Your task to perform on an android device: uninstall "Airtel Thanks" Image 0: 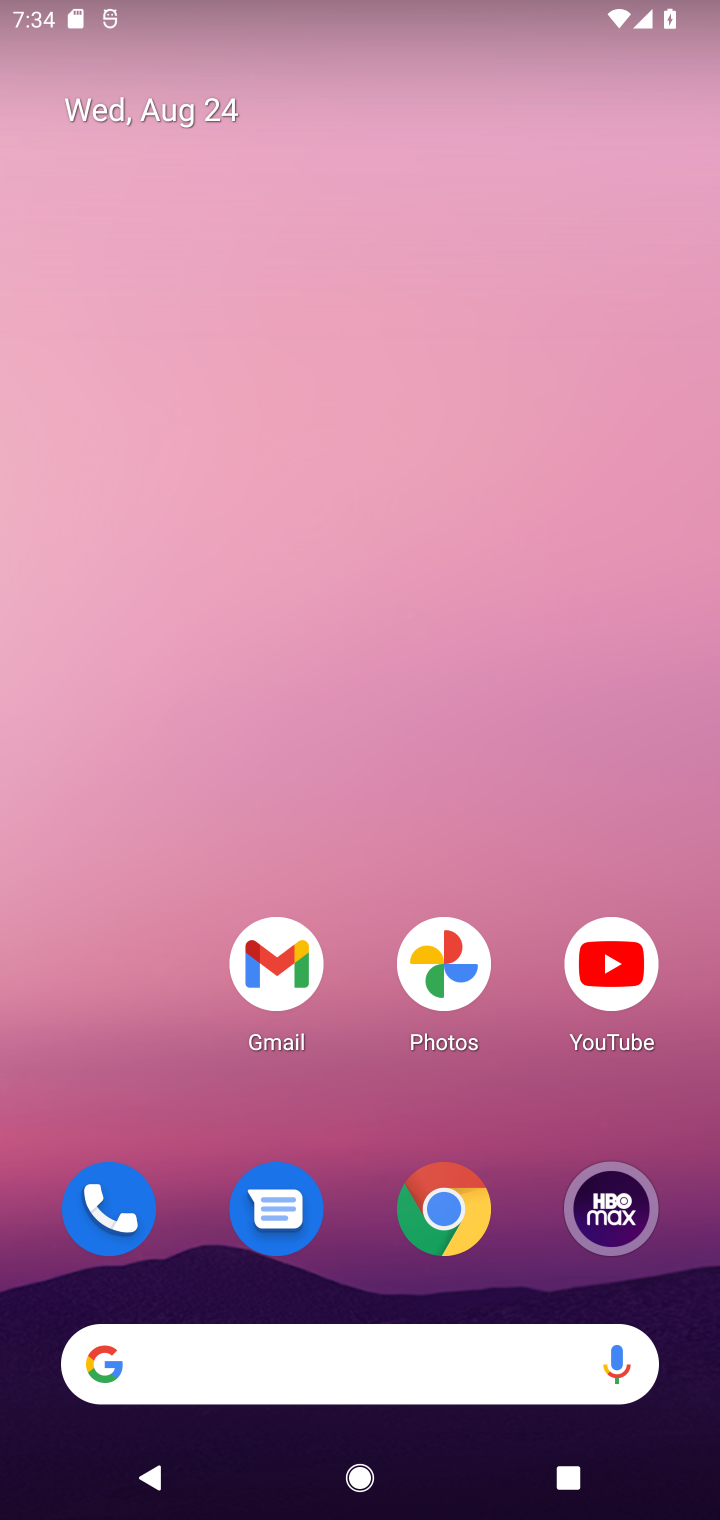
Step 0: drag from (378, 687) to (418, 86)
Your task to perform on an android device: uninstall "Airtel Thanks" Image 1: 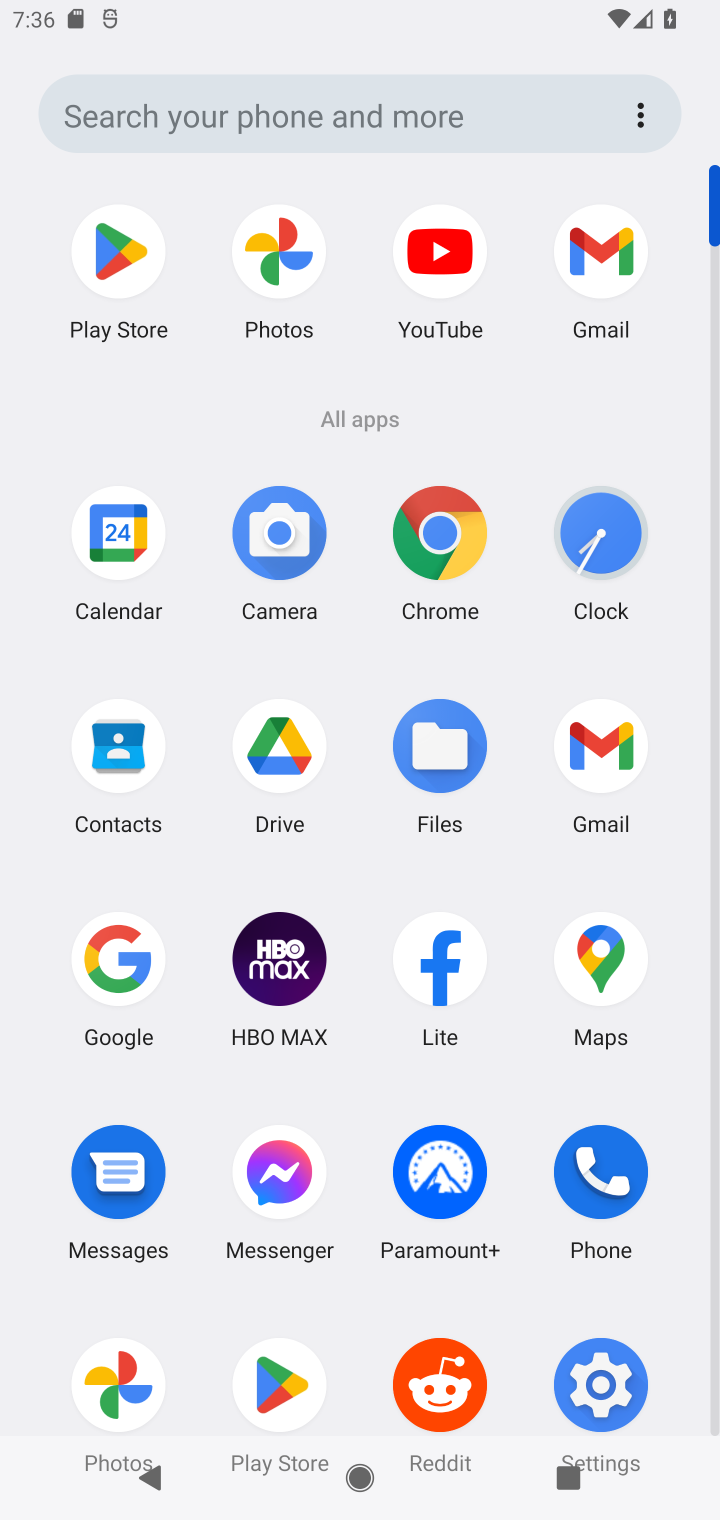
Step 1: drag from (413, 1100) to (393, 722)
Your task to perform on an android device: uninstall "Airtel Thanks" Image 2: 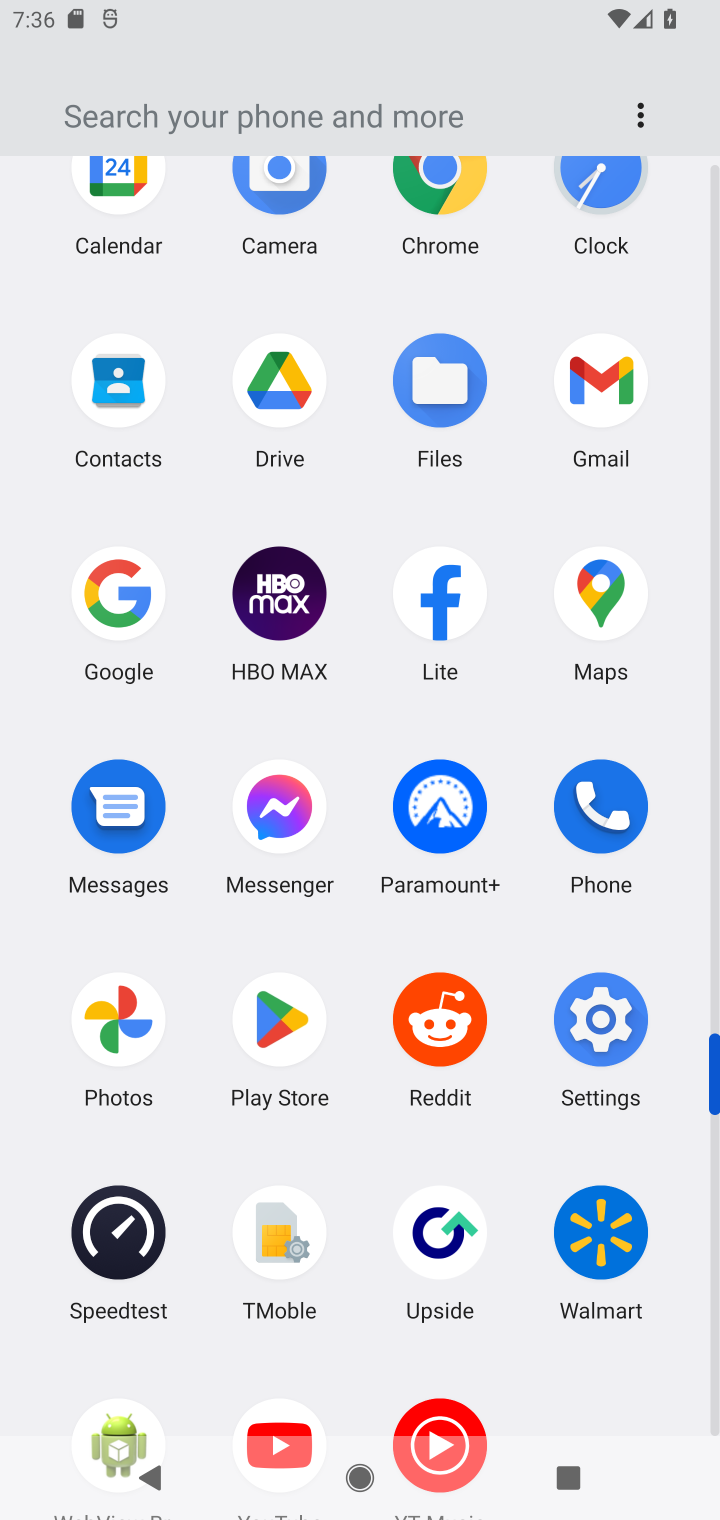
Step 2: drag from (148, 375) to (292, 1199)
Your task to perform on an android device: uninstall "Airtel Thanks" Image 3: 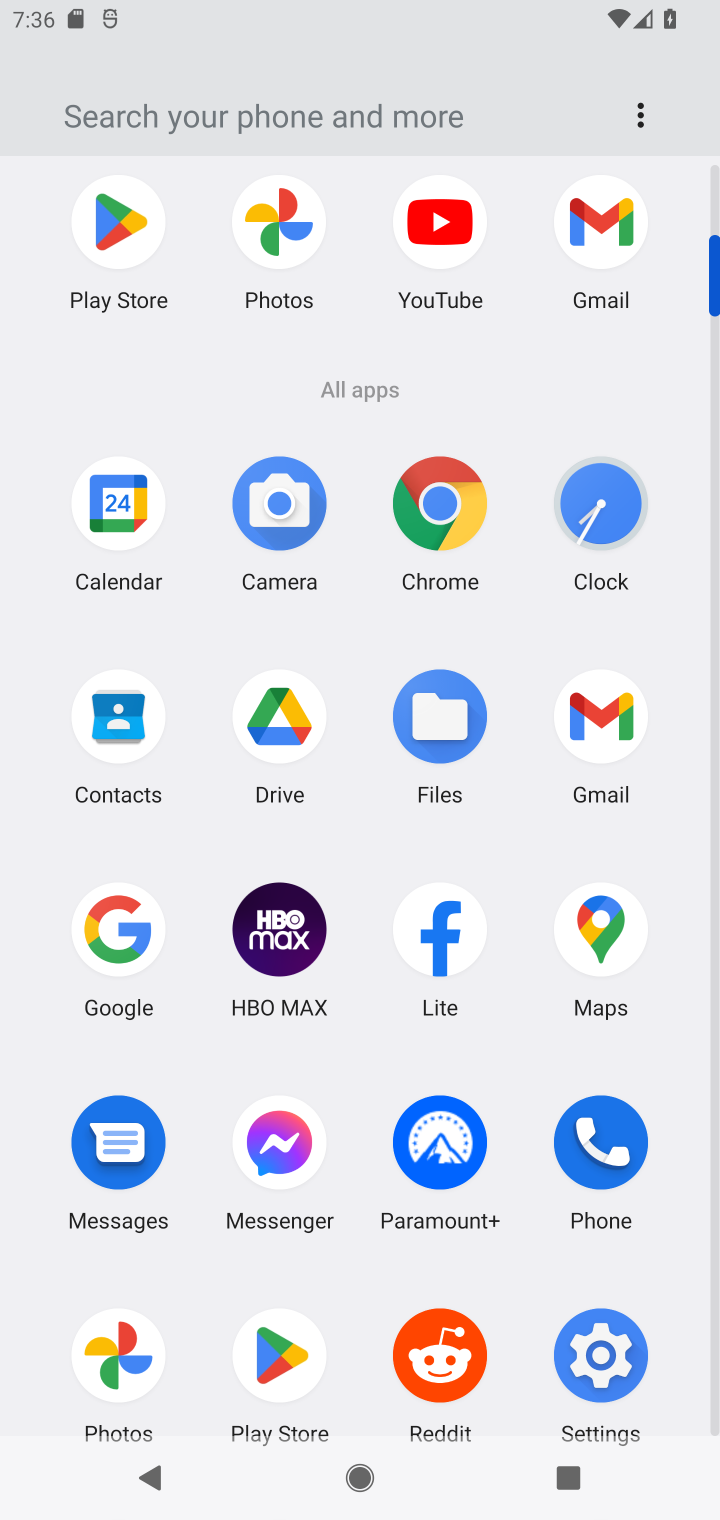
Step 3: click (117, 235)
Your task to perform on an android device: uninstall "Airtel Thanks" Image 4: 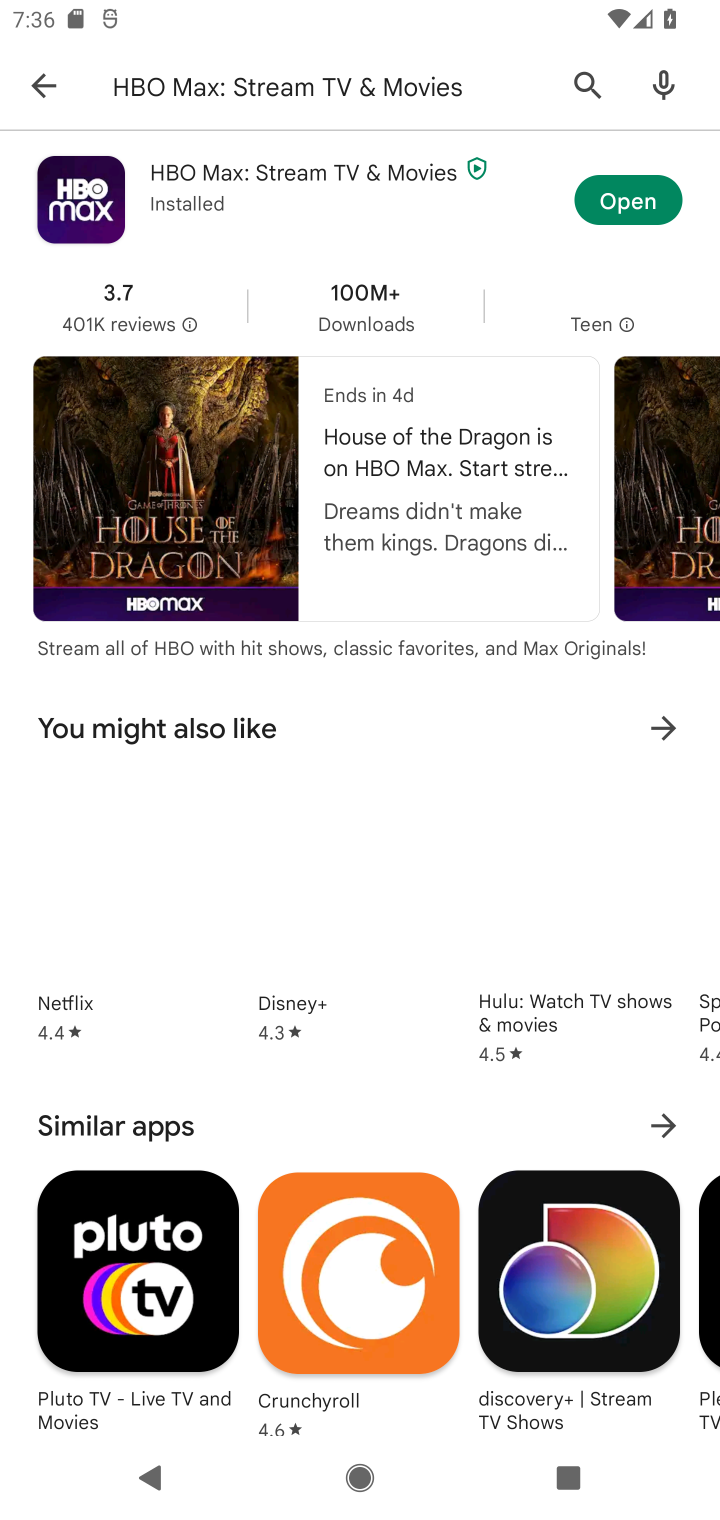
Step 4: press back button
Your task to perform on an android device: uninstall "Airtel Thanks" Image 5: 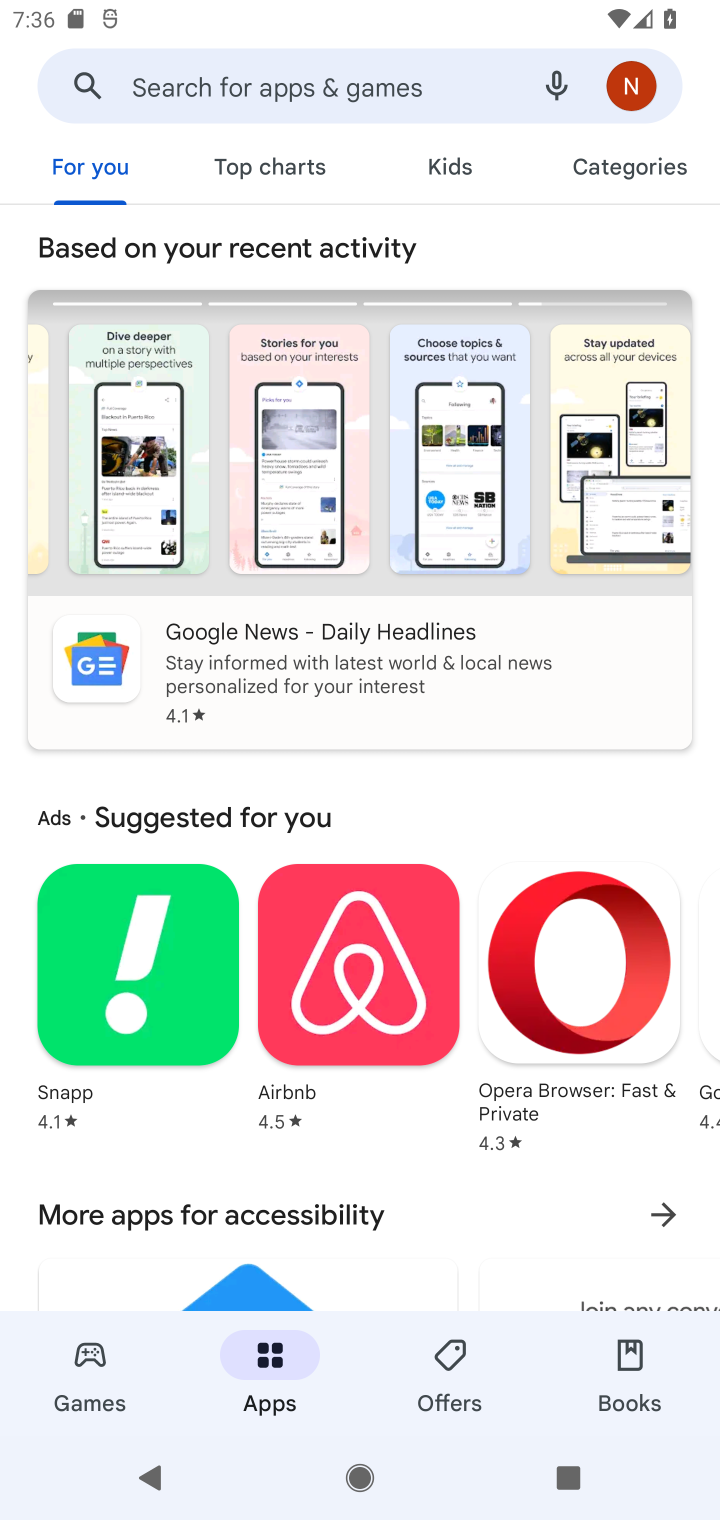
Step 5: click (330, 88)
Your task to perform on an android device: uninstall "Airtel Thanks" Image 6: 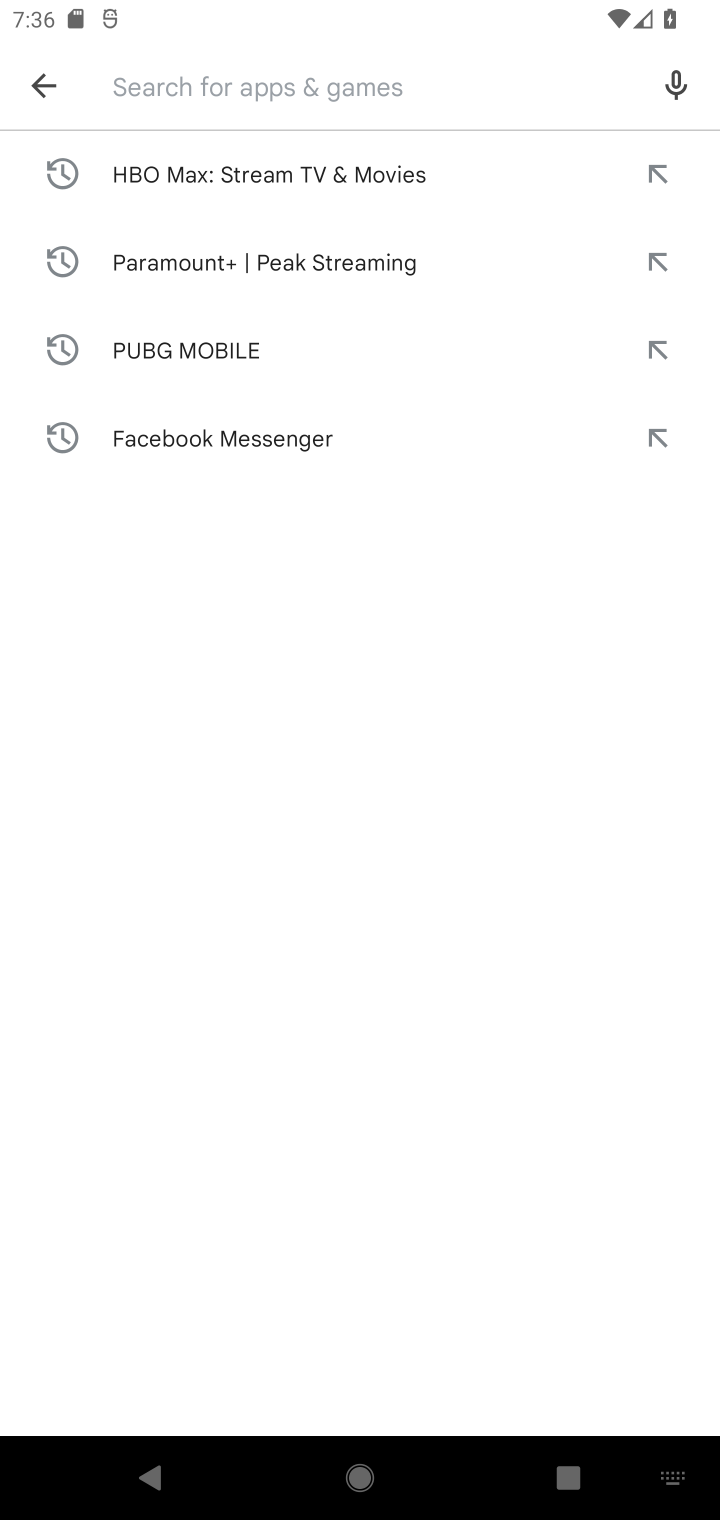
Step 6: type "Airtel Thanks"
Your task to perform on an android device: uninstall "Airtel Thanks" Image 7: 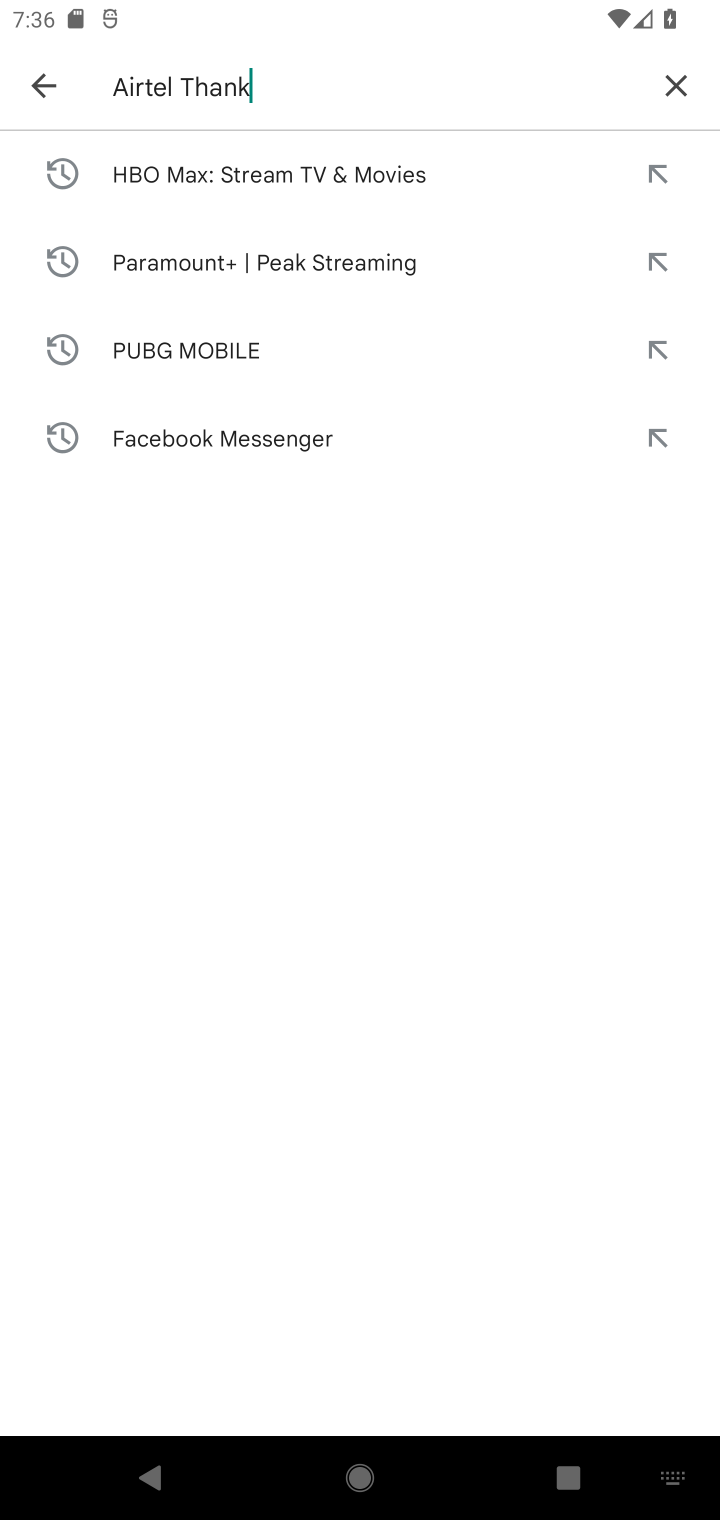
Step 7: press enter
Your task to perform on an android device: uninstall "Airtel Thanks" Image 8: 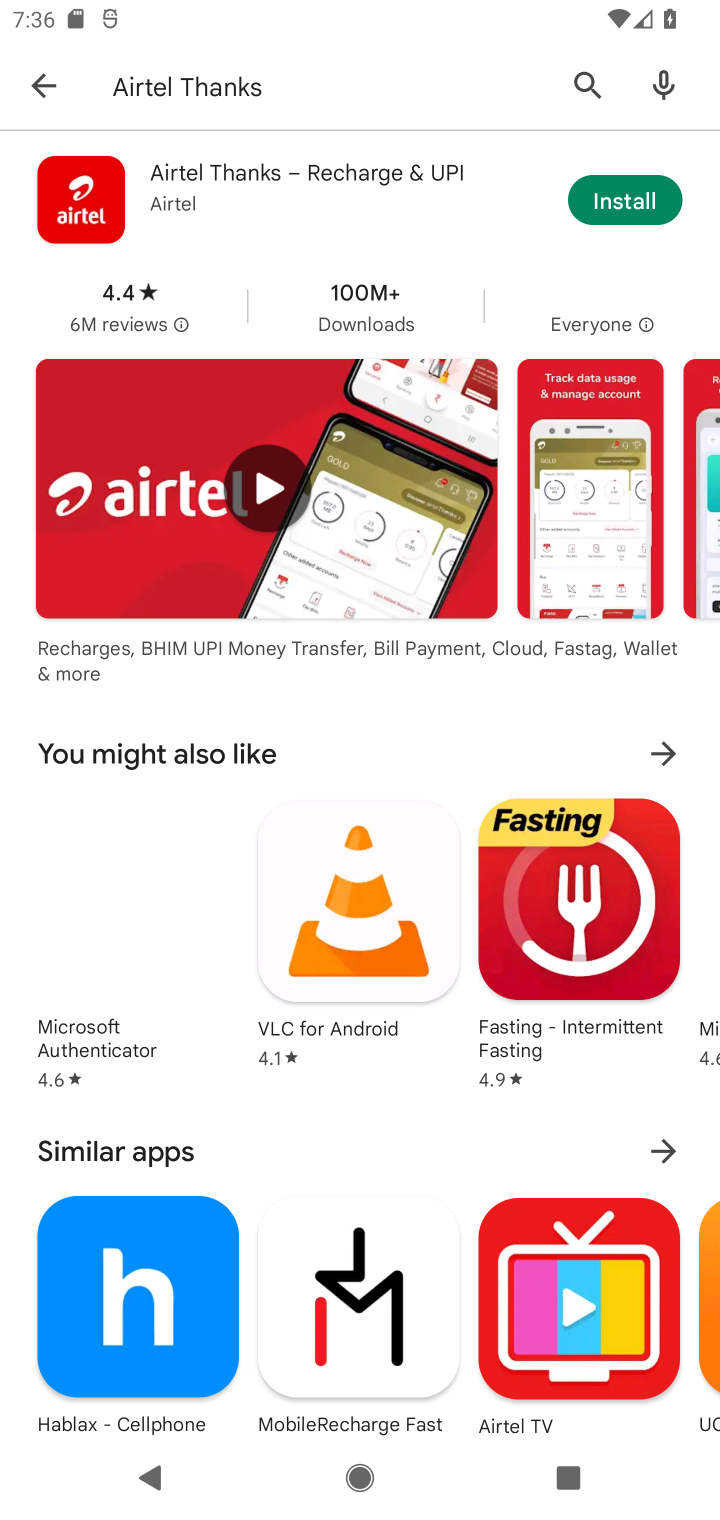
Step 8: task complete